Your task to perform on an android device: Open Youtube and go to the subscriptions tab Image 0: 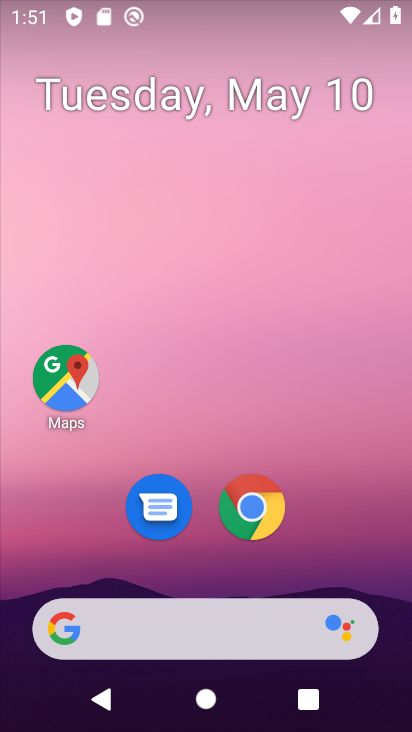
Step 0: drag from (329, 518) to (234, 77)
Your task to perform on an android device: Open Youtube and go to the subscriptions tab Image 1: 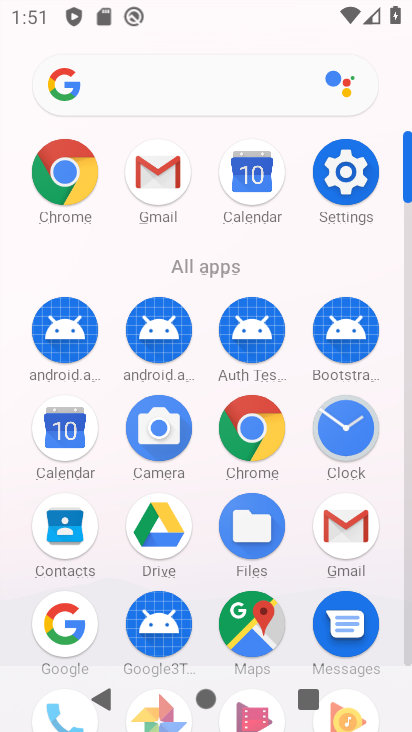
Step 1: drag from (307, 506) to (289, 118)
Your task to perform on an android device: Open Youtube and go to the subscriptions tab Image 2: 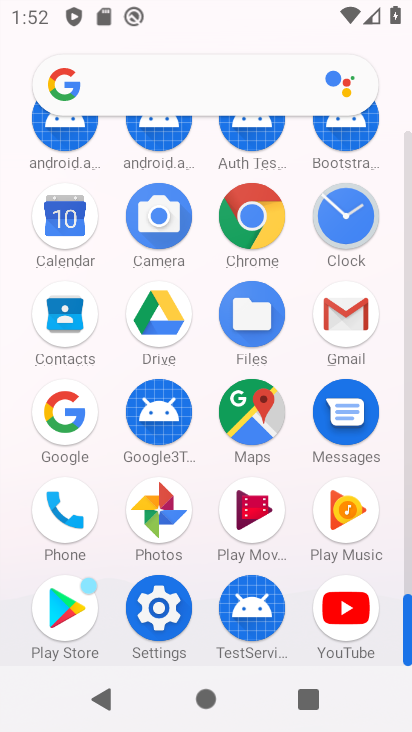
Step 2: click (358, 613)
Your task to perform on an android device: Open Youtube and go to the subscriptions tab Image 3: 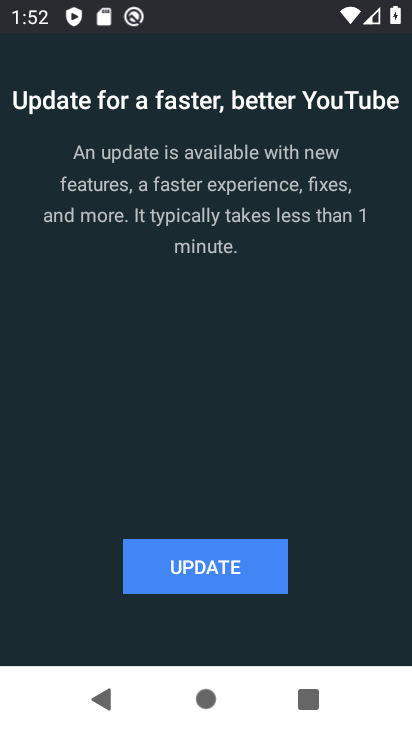
Step 3: click (219, 572)
Your task to perform on an android device: Open Youtube and go to the subscriptions tab Image 4: 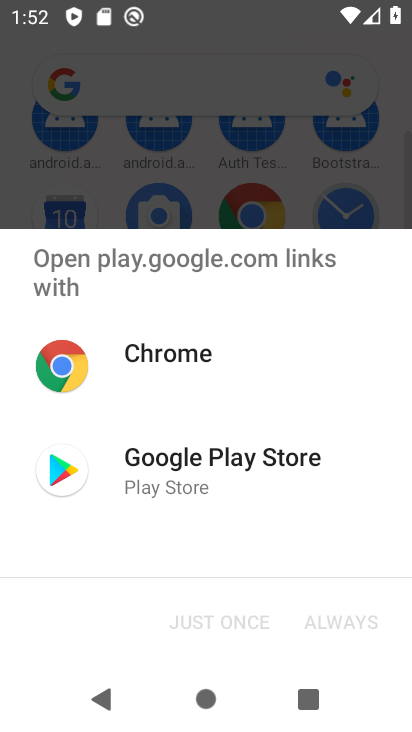
Step 4: click (203, 482)
Your task to perform on an android device: Open Youtube and go to the subscriptions tab Image 5: 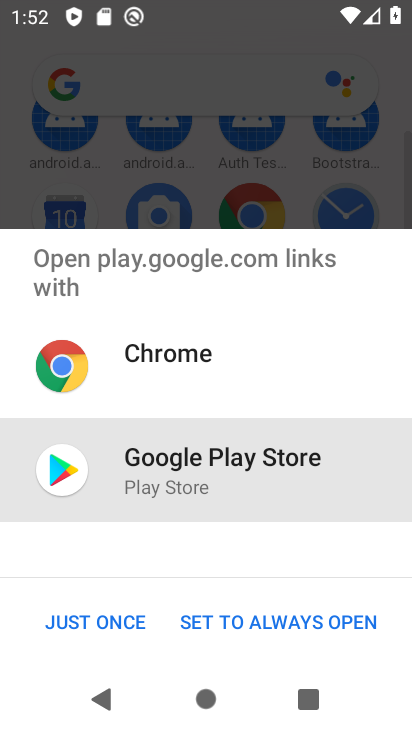
Step 5: click (87, 617)
Your task to perform on an android device: Open Youtube and go to the subscriptions tab Image 6: 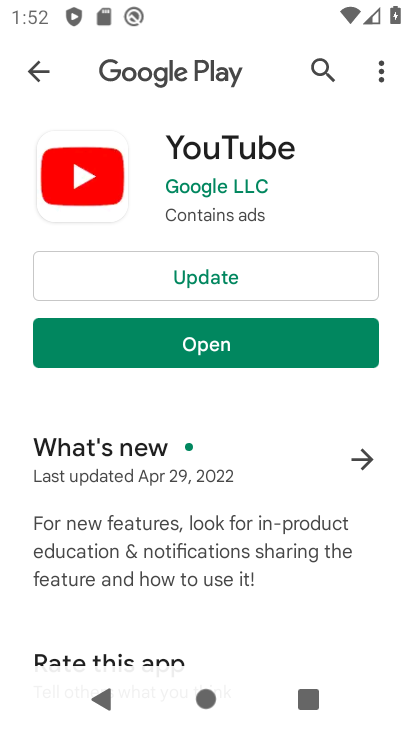
Step 6: click (162, 272)
Your task to perform on an android device: Open Youtube and go to the subscriptions tab Image 7: 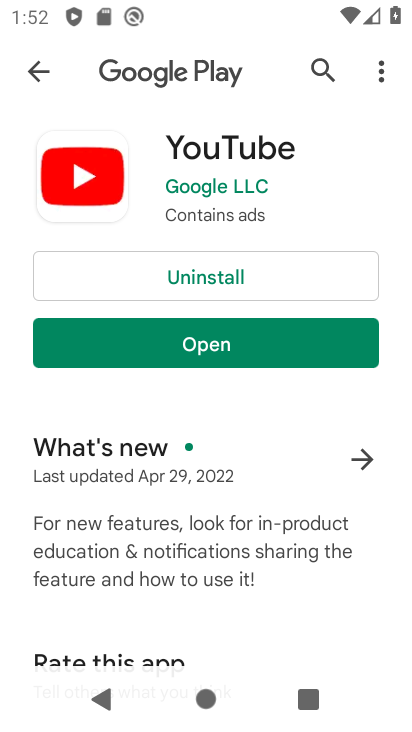
Step 7: click (191, 345)
Your task to perform on an android device: Open Youtube and go to the subscriptions tab Image 8: 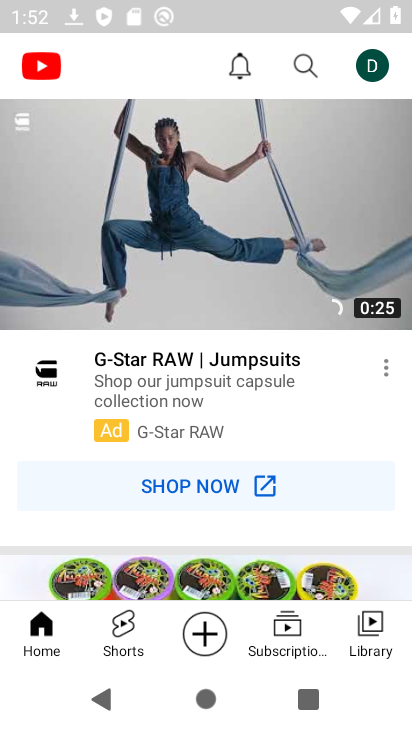
Step 8: click (283, 632)
Your task to perform on an android device: Open Youtube and go to the subscriptions tab Image 9: 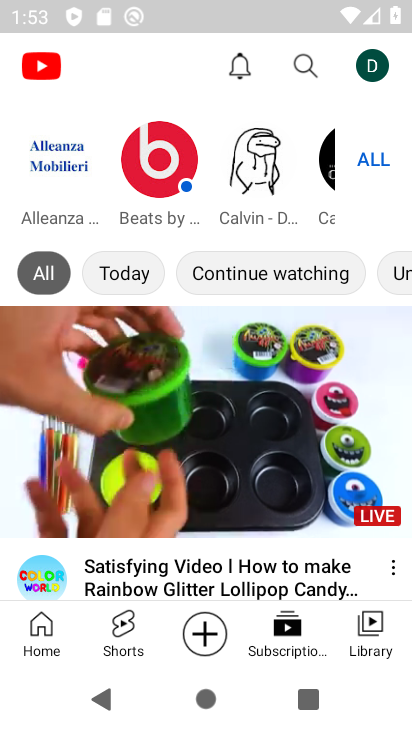
Step 9: task complete